Your task to perform on an android device: Go to Maps Image 0: 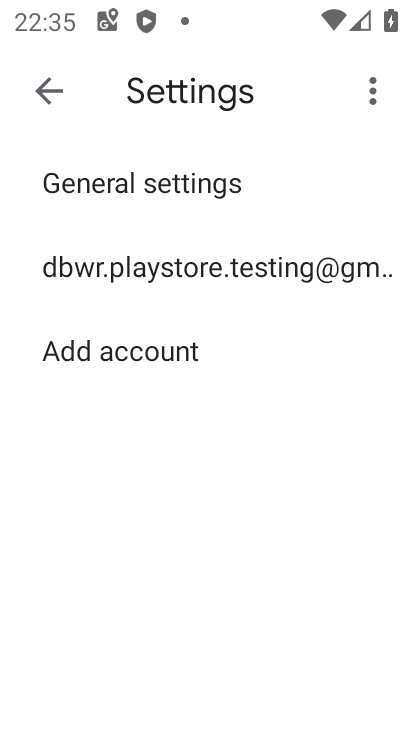
Step 0: press home button
Your task to perform on an android device: Go to Maps Image 1: 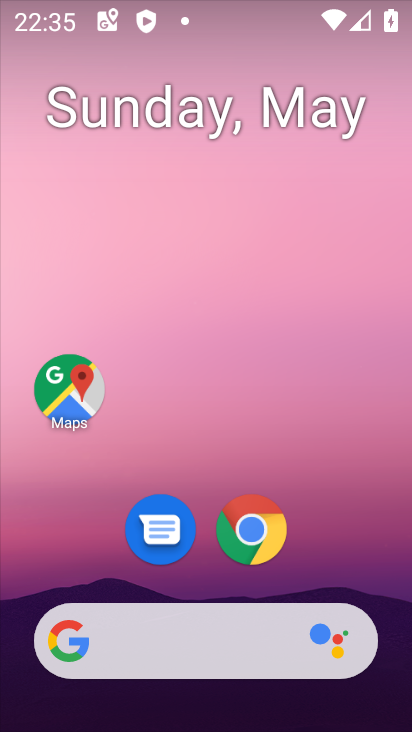
Step 1: click (59, 395)
Your task to perform on an android device: Go to Maps Image 2: 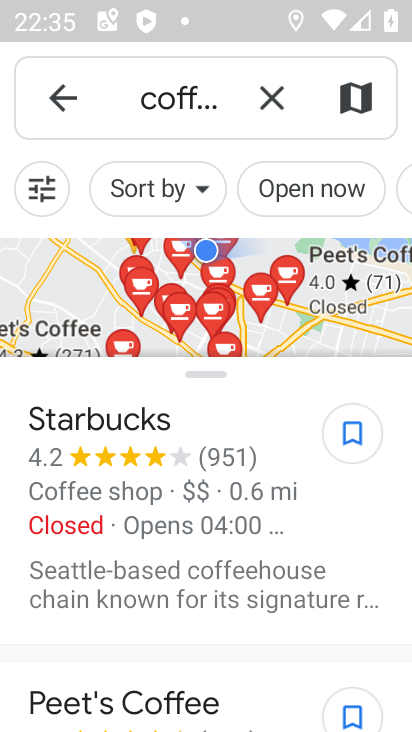
Step 2: task complete